Your task to perform on an android device: Open wifi settings Image 0: 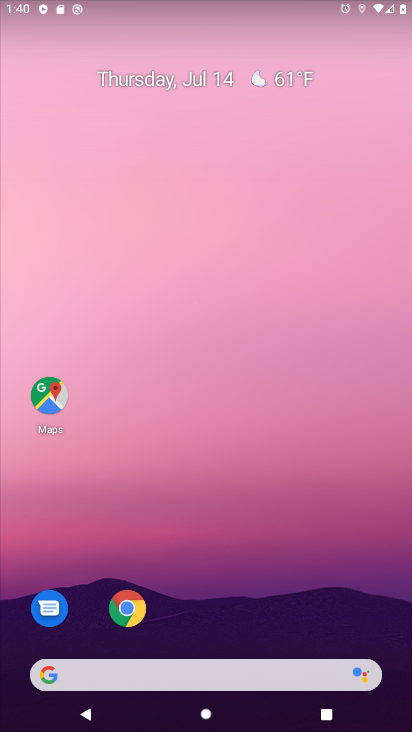
Step 0: drag from (251, 605) to (332, 229)
Your task to perform on an android device: Open wifi settings Image 1: 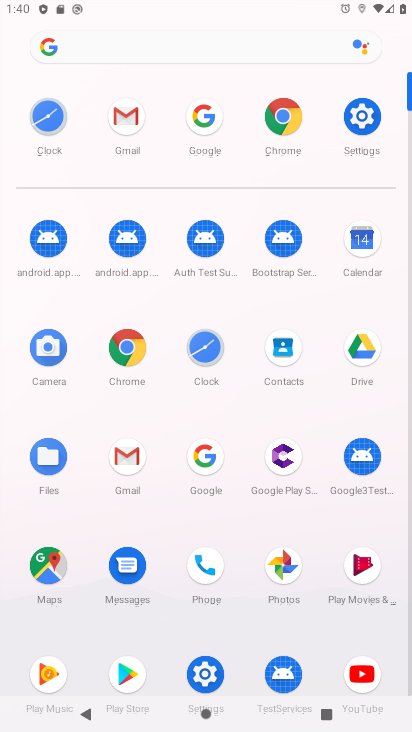
Step 1: click (362, 122)
Your task to perform on an android device: Open wifi settings Image 2: 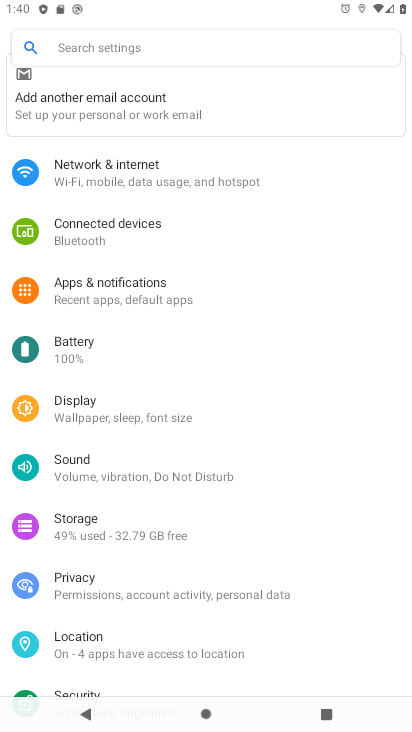
Step 2: click (94, 167)
Your task to perform on an android device: Open wifi settings Image 3: 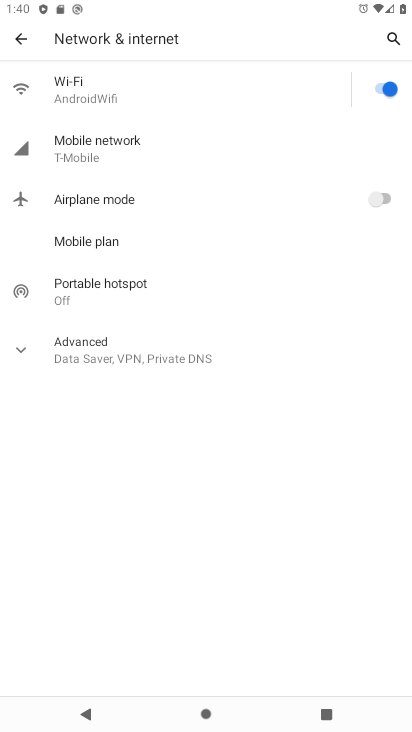
Step 3: click (106, 92)
Your task to perform on an android device: Open wifi settings Image 4: 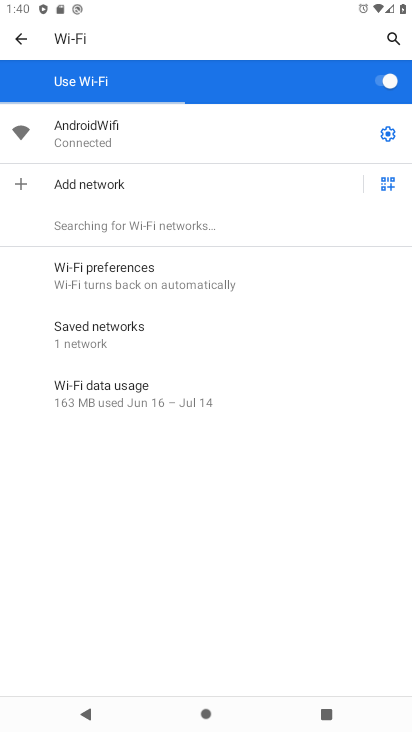
Step 4: click (386, 128)
Your task to perform on an android device: Open wifi settings Image 5: 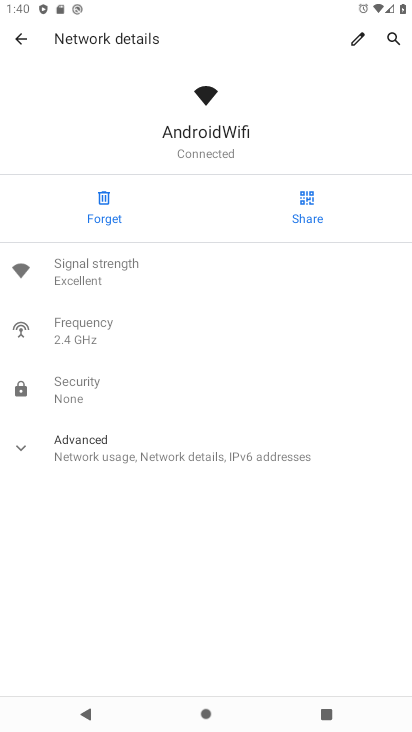
Step 5: drag from (292, 376) to (271, 130)
Your task to perform on an android device: Open wifi settings Image 6: 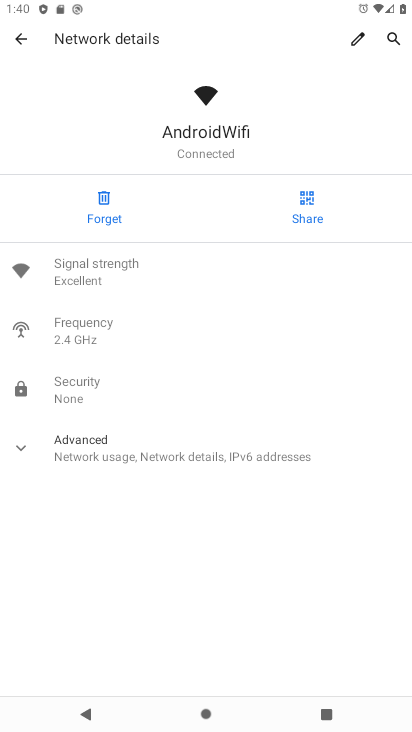
Step 6: click (172, 448)
Your task to perform on an android device: Open wifi settings Image 7: 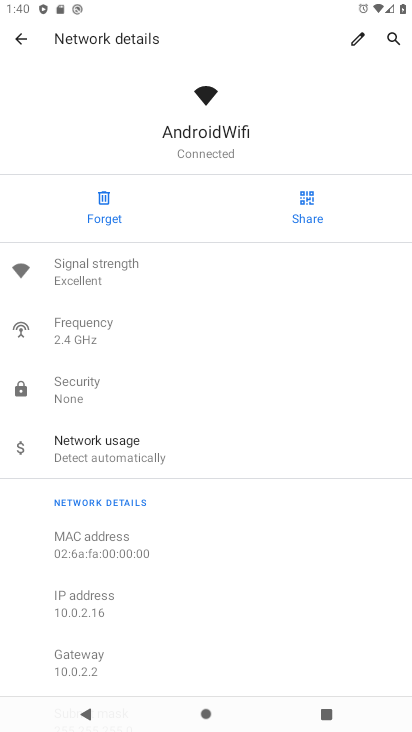
Step 7: task complete